Your task to perform on an android device: turn off javascript in the chrome app Image 0: 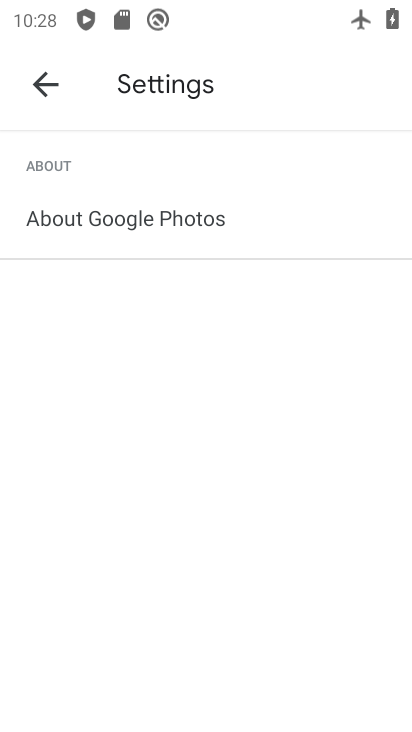
Step 0: press back button
Your task to perform on an android device: turn off javascript in the chrome app Image 1: 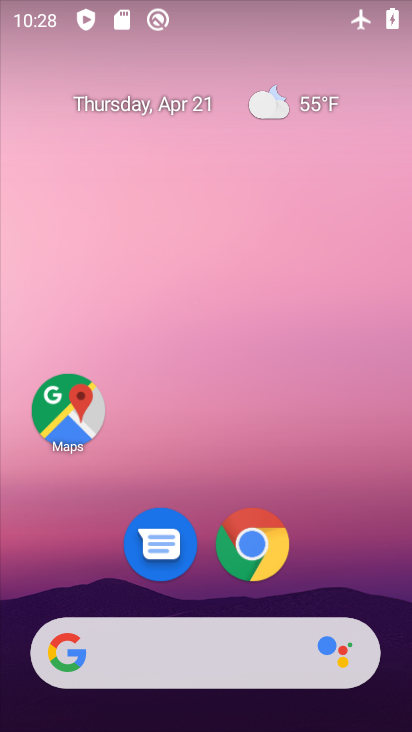
Step 1: drag from (371, 544) to (250, 65)
Your task to perform on an android device: turn off javascript in the chrome app Image 2: 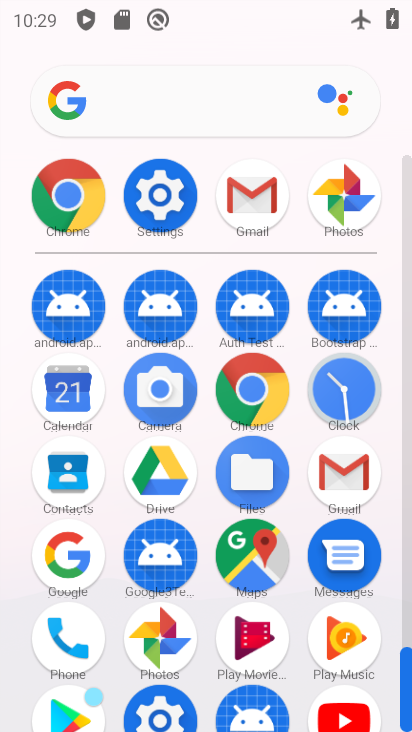
Step 2: drag from (17, 591) to (8, 347)
Your task to perform on an android device: turn off javascript in the chrome app Image 3: 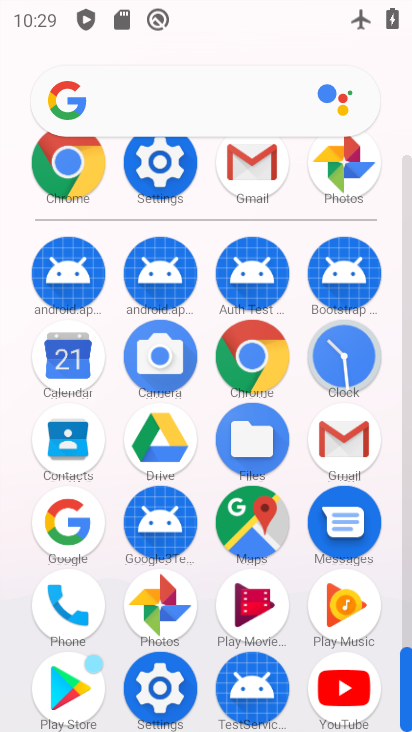
Step 3: click (251, 350)
Your task to perform on an android device: turn off javascript in the chrome app Image 4: 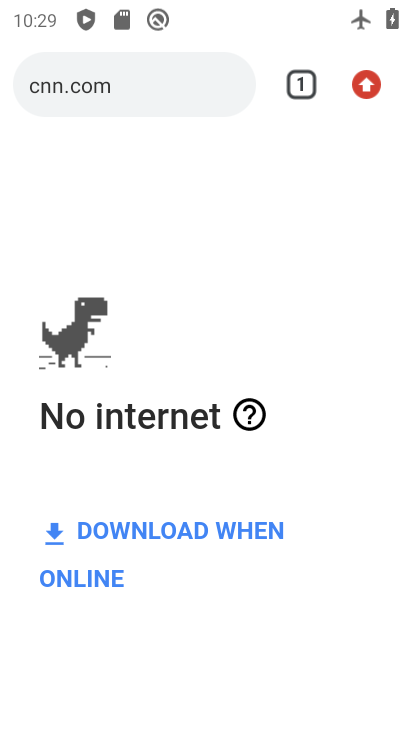
Step 4: drag from (377, 88) to (110, 586)
Your task to perform on an android device: turn off javascript in the chrome app Image 5: 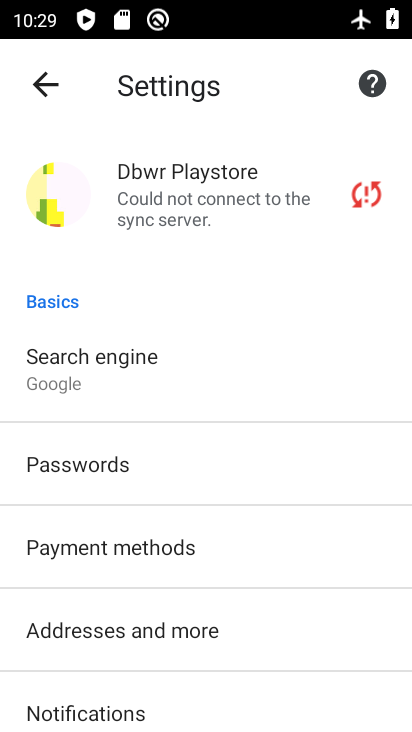
Step 5: drag from (241, 608) to (232, 153)
Your task to perform on an android device: turn off javascript in the chrome app Image 6: 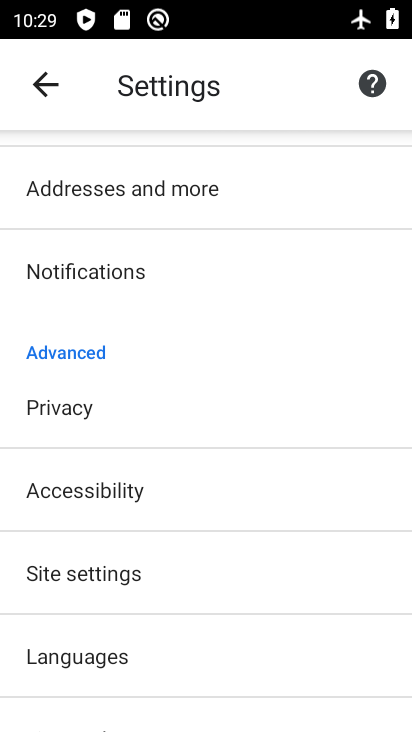
Step 6: drag from (250, 445) to (261, 138)
Your task to perform on an android device: turn off javascript in the chrome app Image 7: 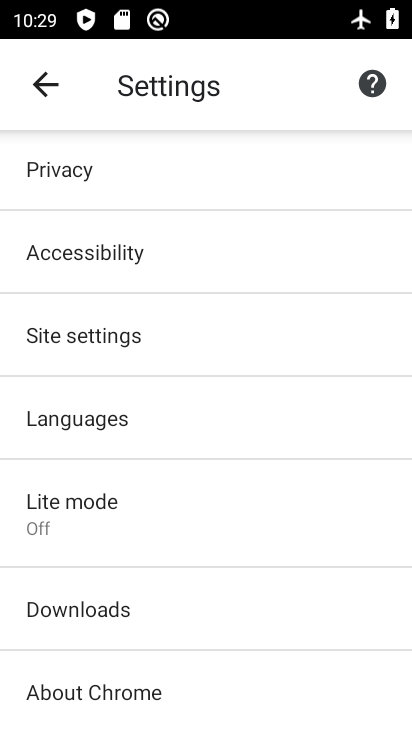
Step 7: click (94, 337)
Your task to perform on an android device: turn off javascript in the chrome app Image 8: 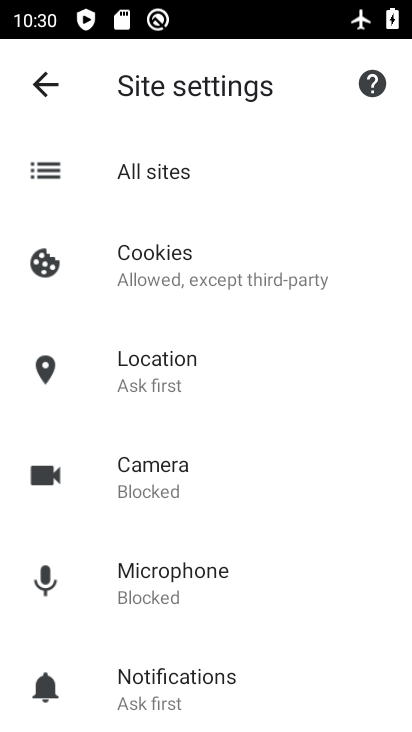
Step 8: drag from (256, 611) to (238, 260)
Your task to perform on an android device: turn off javascript in the chrome app Image 9: 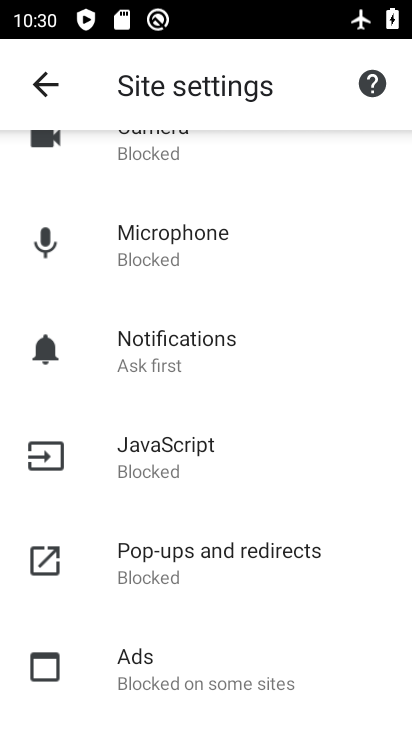
Step 9: click (195, 439)
Your task to perform on an android device: turn off javascript in the chrome app Image 10: 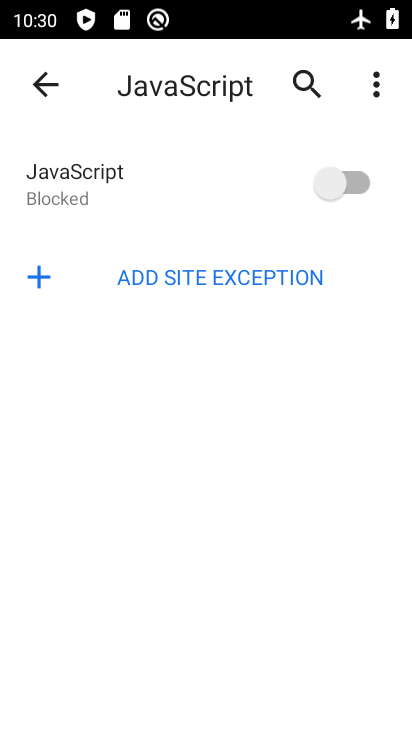
Step 10: task complete